Your task to perform on an android device: Is it going to rain tomorrow? Image 0: 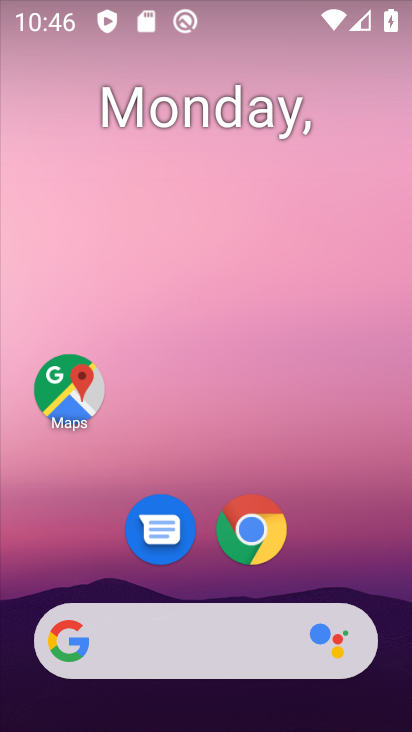
Step 0: drag from (328, 556) to (295, 138)
Your task to perform on an android device: Is it going to rain tomorrow? Image 1: 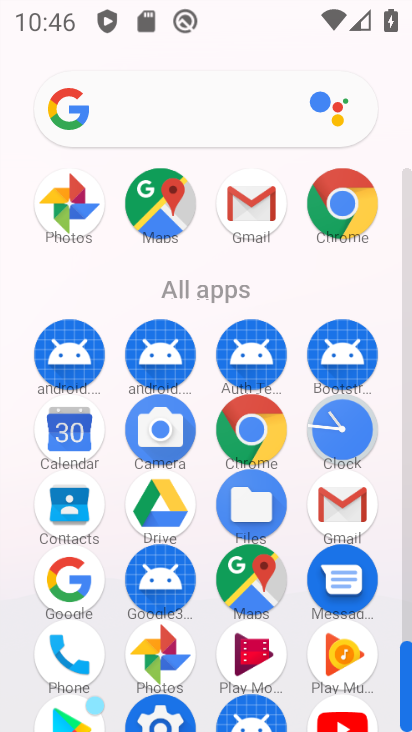
Step 1: click (65, 580)
Your task to perform on an android device: Is it going to rain tomorrow? Image 2: 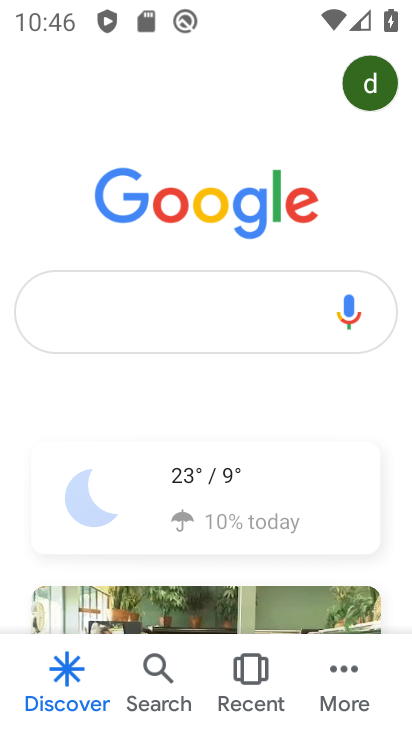
Step 2: click (198, 318)
Your task to perform on an android device: Is it going to rain tomorrow? Image 3: 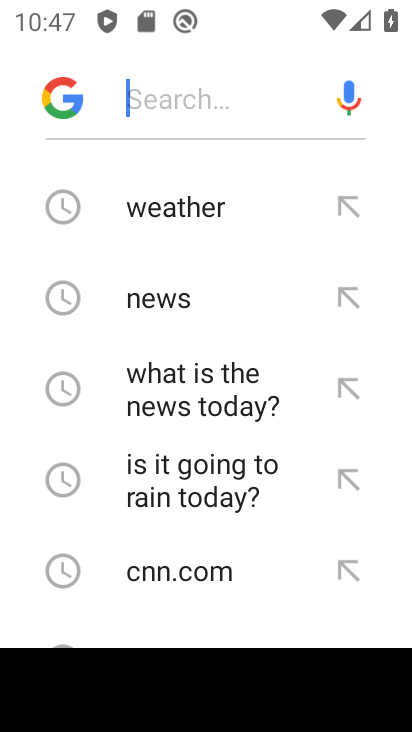
Step 3: type "Is it going to rain tomorrow"
Your task to perform on an android device: Is it going to rain tomorrow? Image 4: 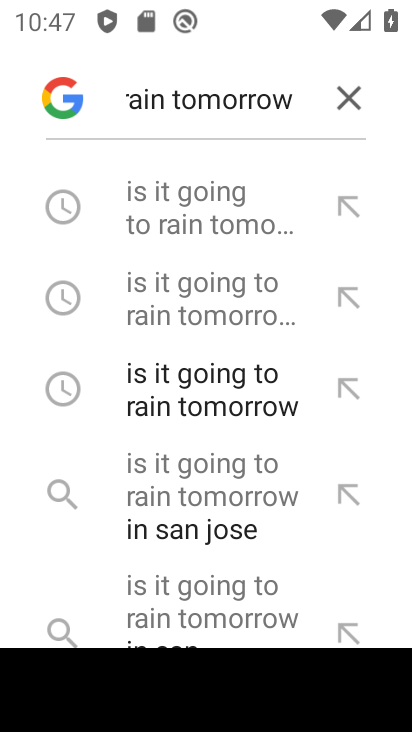
Step 4: click (217, 224)
Your task to perform on an android device: Is it going to rain tomorrow? Image 5: 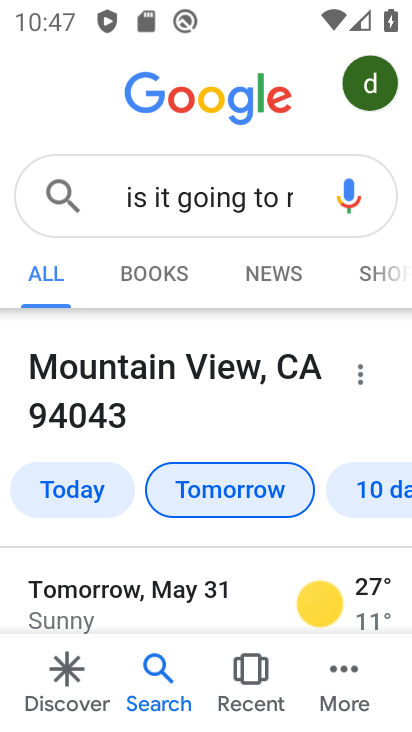
Step 5: task complete